Your task to perform on an android device: Open the calendar app, open the side menu, and click the "Day" option Image 0: 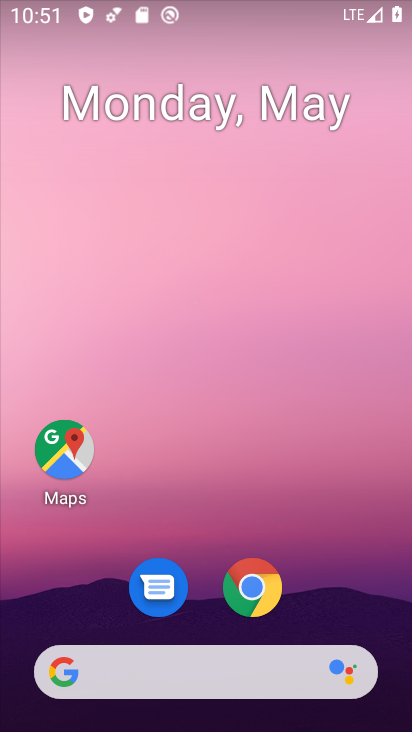
Step 0: drag from (328, 592) to (301, 162)
Your task to perform on an android device: Open the calendar app, open the side menu, and click the "Day" option Image 1: 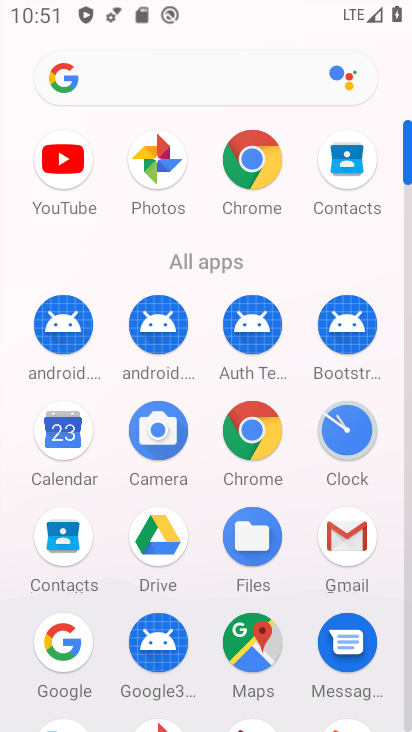
Step 1: click (69, 451)
Your task to perform on an android device: Open the calendar app, open the side menu, and click the "Day" option Image 2: 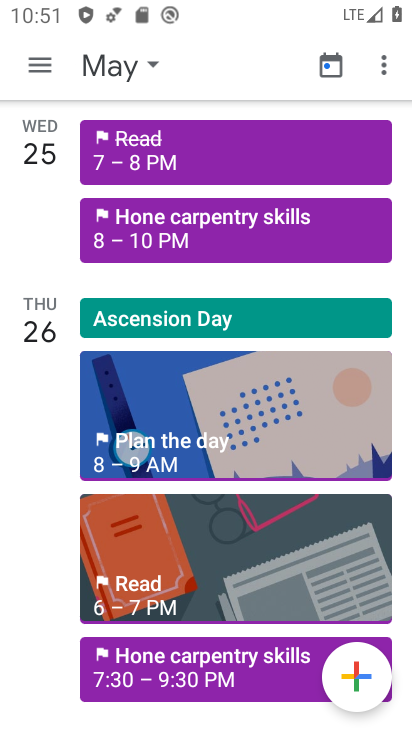
Step 2: click (50, 75)
Your task to perform on an android device: Open the calendar app, open the side menu, and click the "Day" option Image 3: 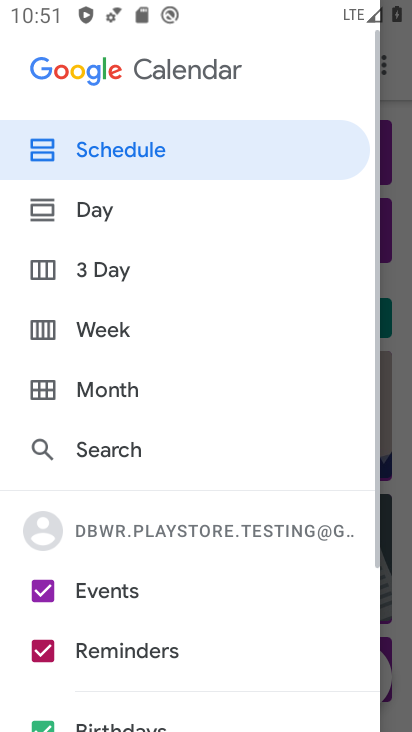
Step 3: click (156, 222)
Your task to perform on an android device: Open the calendar app, open the side menu, and click the "Day" option Image 4: 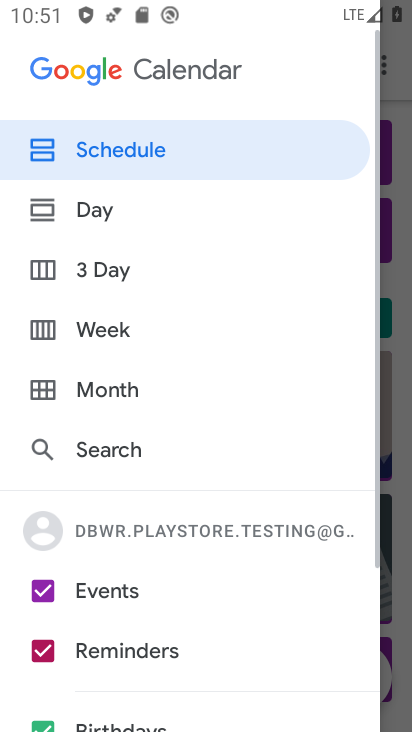
Step 4: click (81, 207)
Your task to perform on an android device: Open the calendar app, open the side menu, and click the "Day" option Image 5: 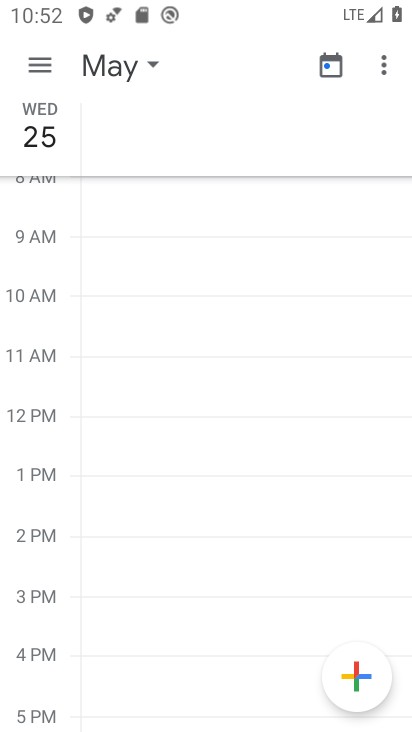
Step 5: task complete